Your task to perform on an android device: Open maps Image 0: 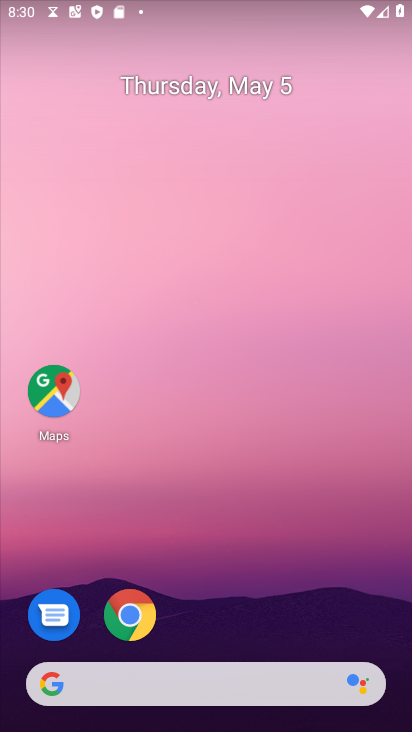
Step 0: click (55, 395)
Your task to perform on an android device: Open maps Image 1: 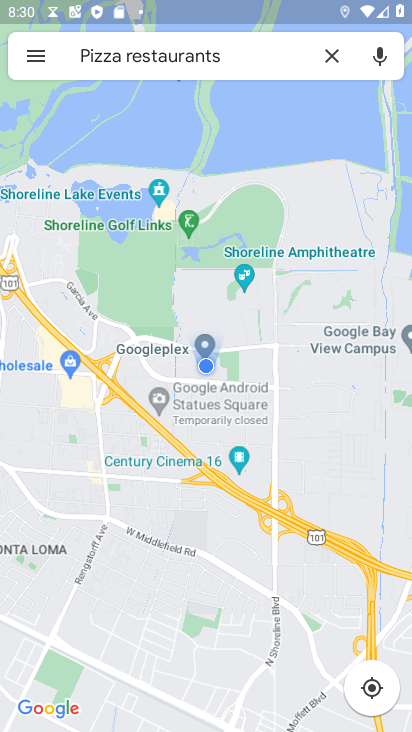
Step 1: task complete